Your task to perform on an android device: turn notification dots on Image 0: 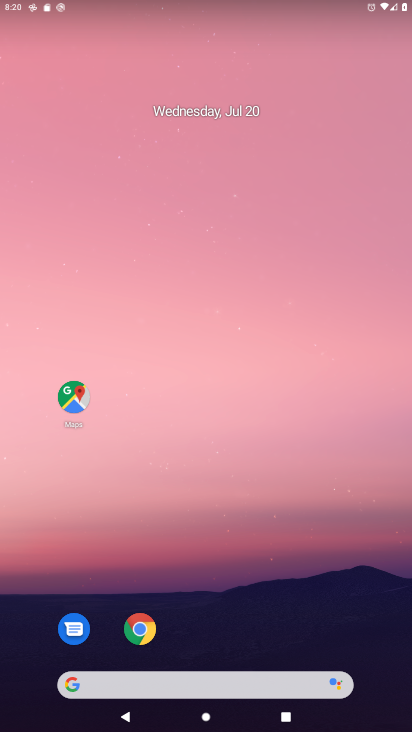
Step 0: drag from (282, 631) to (187, 110)
Your task to perform on an android device: turn notification dots on Image 1: 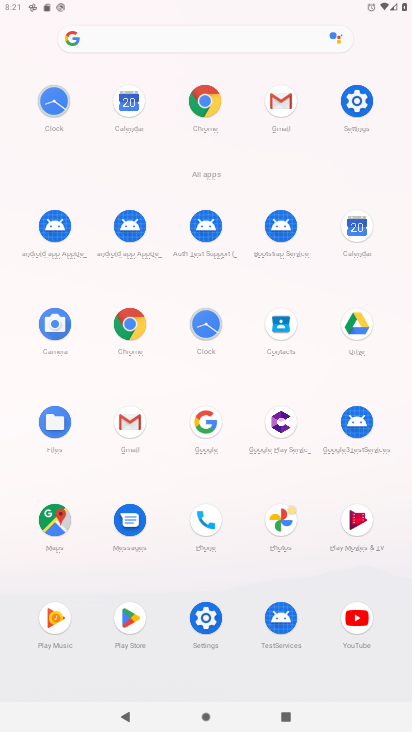
Step 1: click (208, 631)
Your task to perform on an android device: turn notification dots on Image 2: 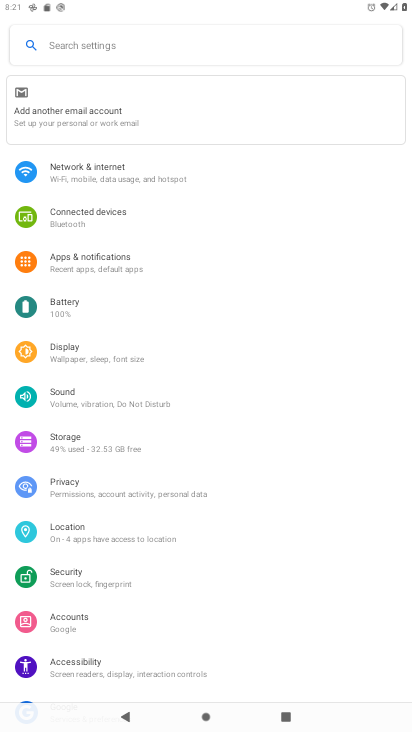
Step 2: click (88, 260)
Your task to perform on an android device: turn notification dots on Image 3: 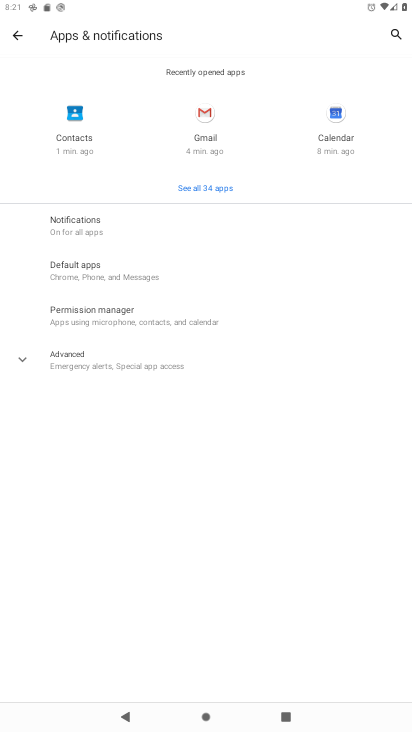
Step 3: click (125, 356)
Your task to perform on an android device: turn notification dots on Image 4: 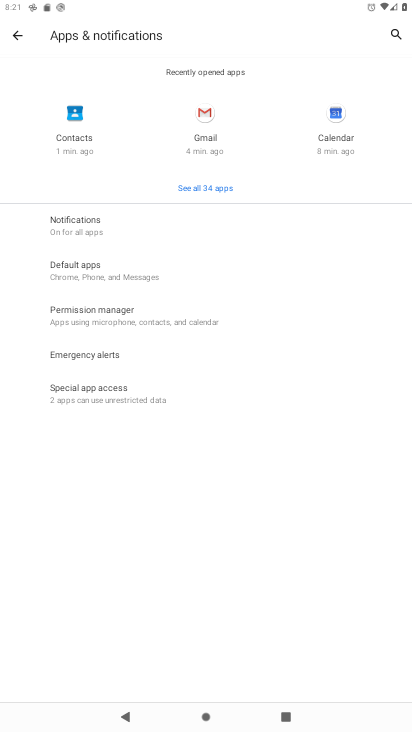
Step 4: click (99, 216)
Your task to perform on an android device: turn notification dots on Image 5: 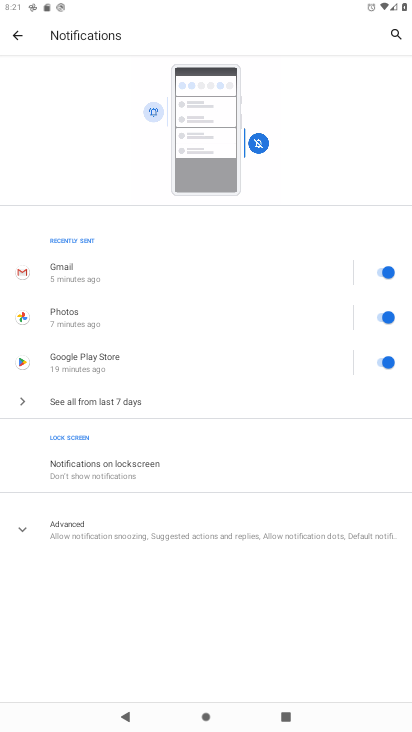
Step 5: click (141, 514)
Your task to perform on an android device: turn notification dots on Image 6: 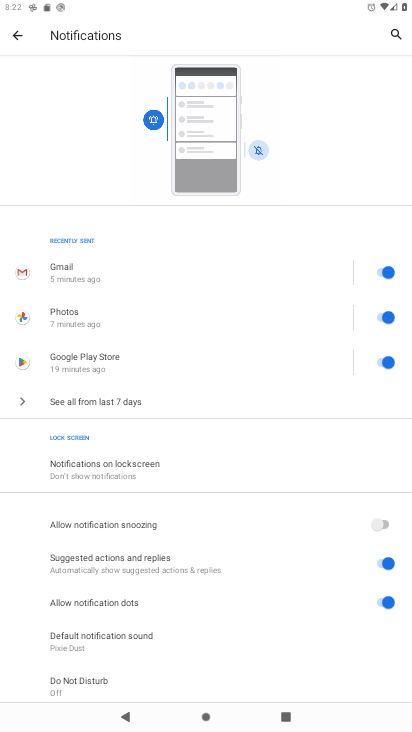
Step 6: task complete